Your task to perform on an android device: Search for Italian restaurants on Maps Image 0: 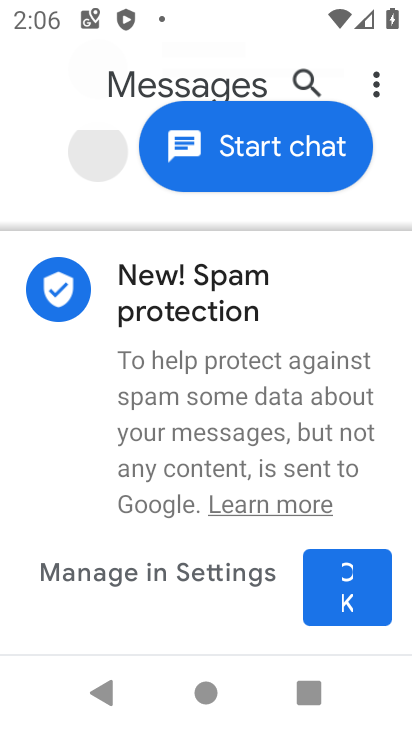
Step 0: press home button
Your task to perform on an android device: Search for Italian restaurants on Maps Image 1: 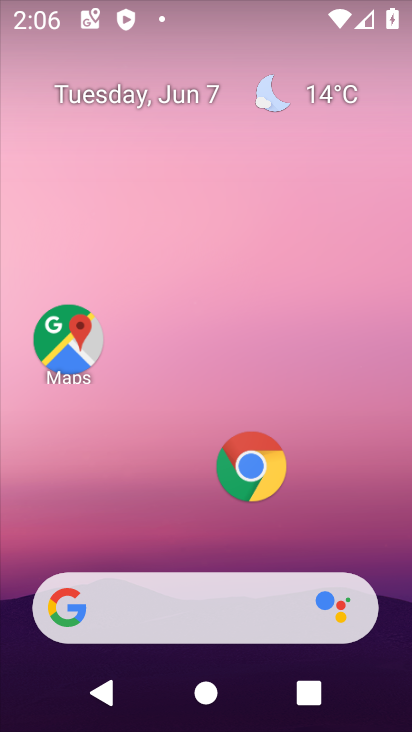
Step 1: click (83, 354)
Your task to perform on an android device: Search for Italian restaurants on Maps Image 2: 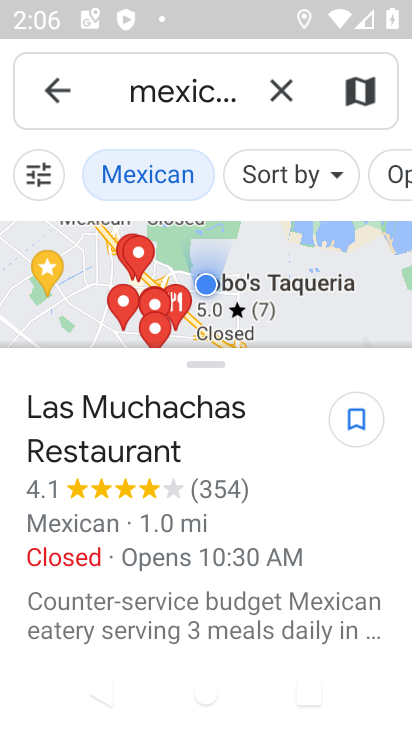
Step 2: click (279, 94)
Your task to perform on an android device: Search for Italian restaurants on Maps Image 3: 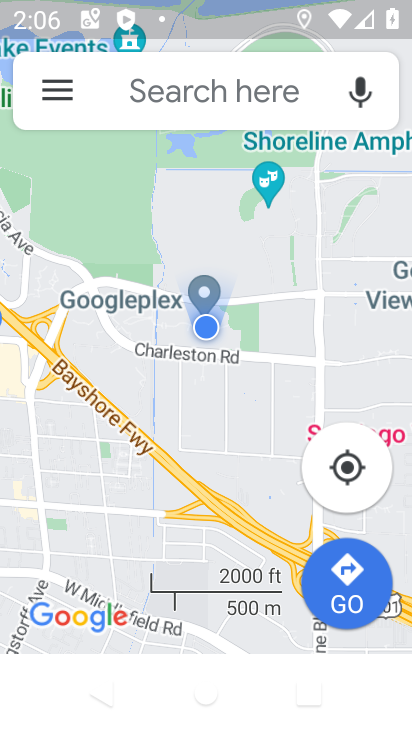
Step 3: click (180, 93)
Your task to perform on an android device: Search for Italian restaurants on Maps Image 4: 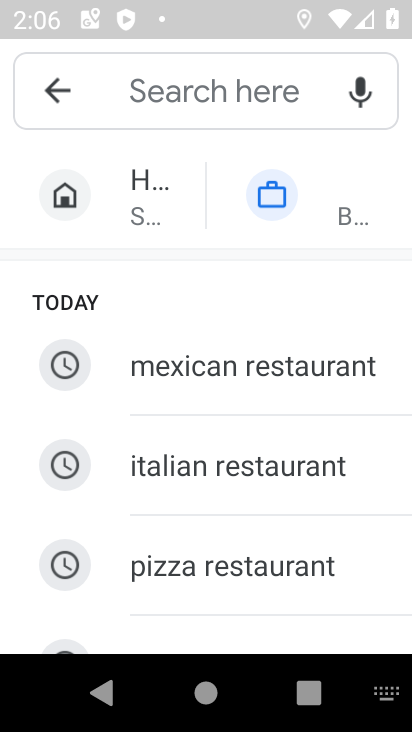
Step 4: click (268, 468)
Your task to perform on an android device: Search for Italian restaurants on Maps Image 5: 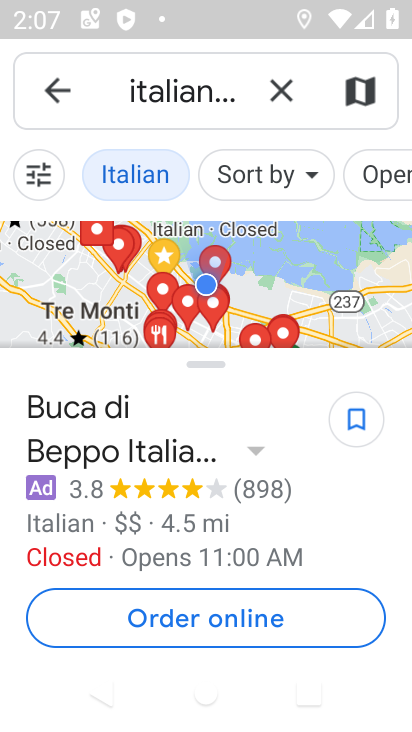
Step 5: task complete